Your task to perform on an android device: Show the shopping cart on bestbuy. Image 0: 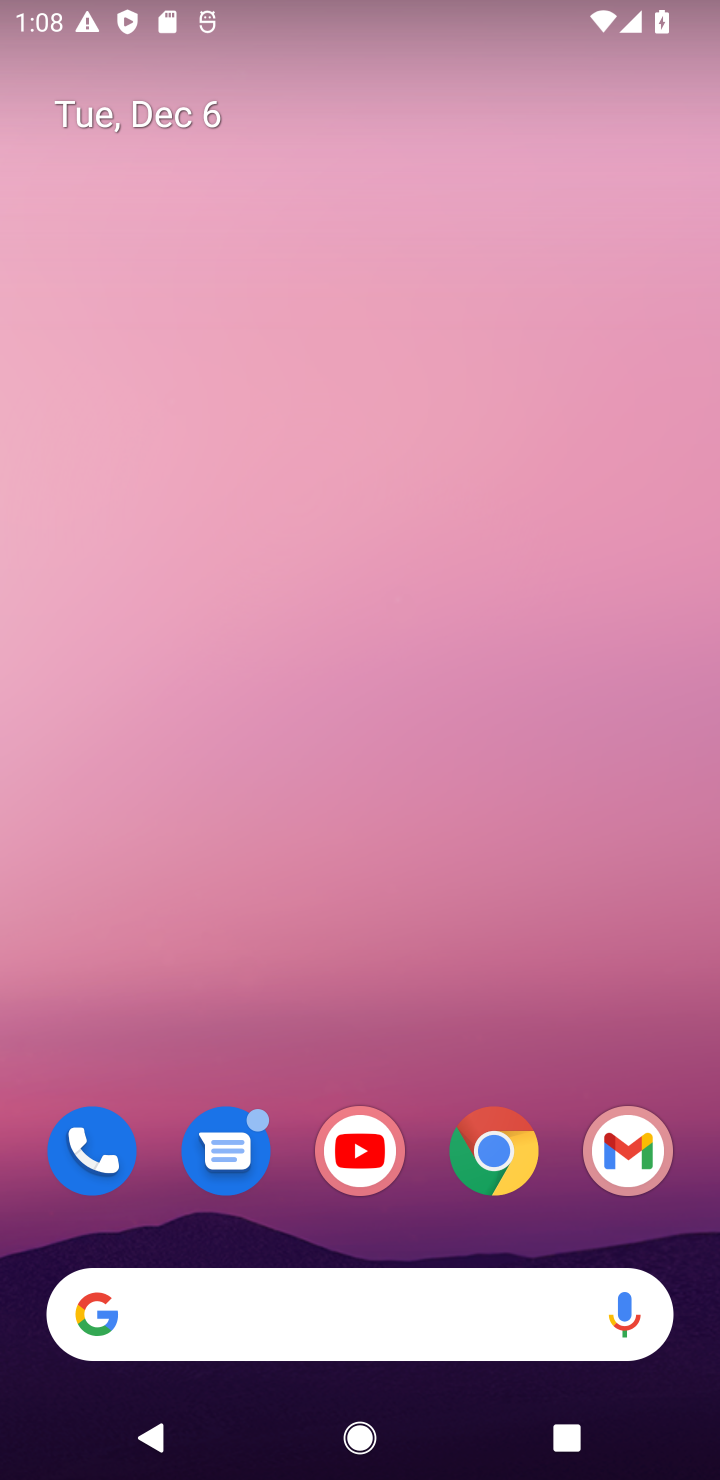
Step 0: click (490, 1166)
Your task to perform on an android device: Show the shopping cart on bestbuy. Image 1: 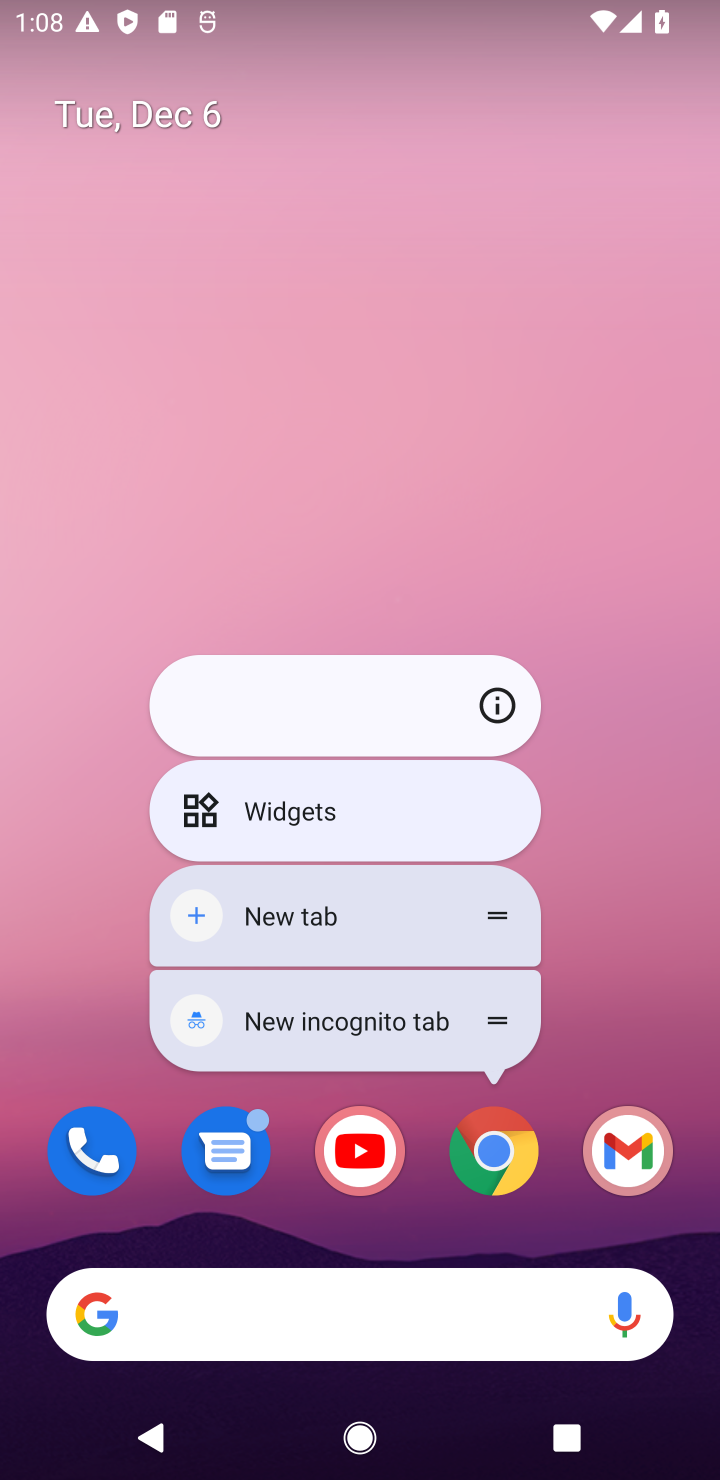
Step 1: click (495, 1160)
Your task to perform on an android device: Show the shopping cart on bestbuy. Image 2: 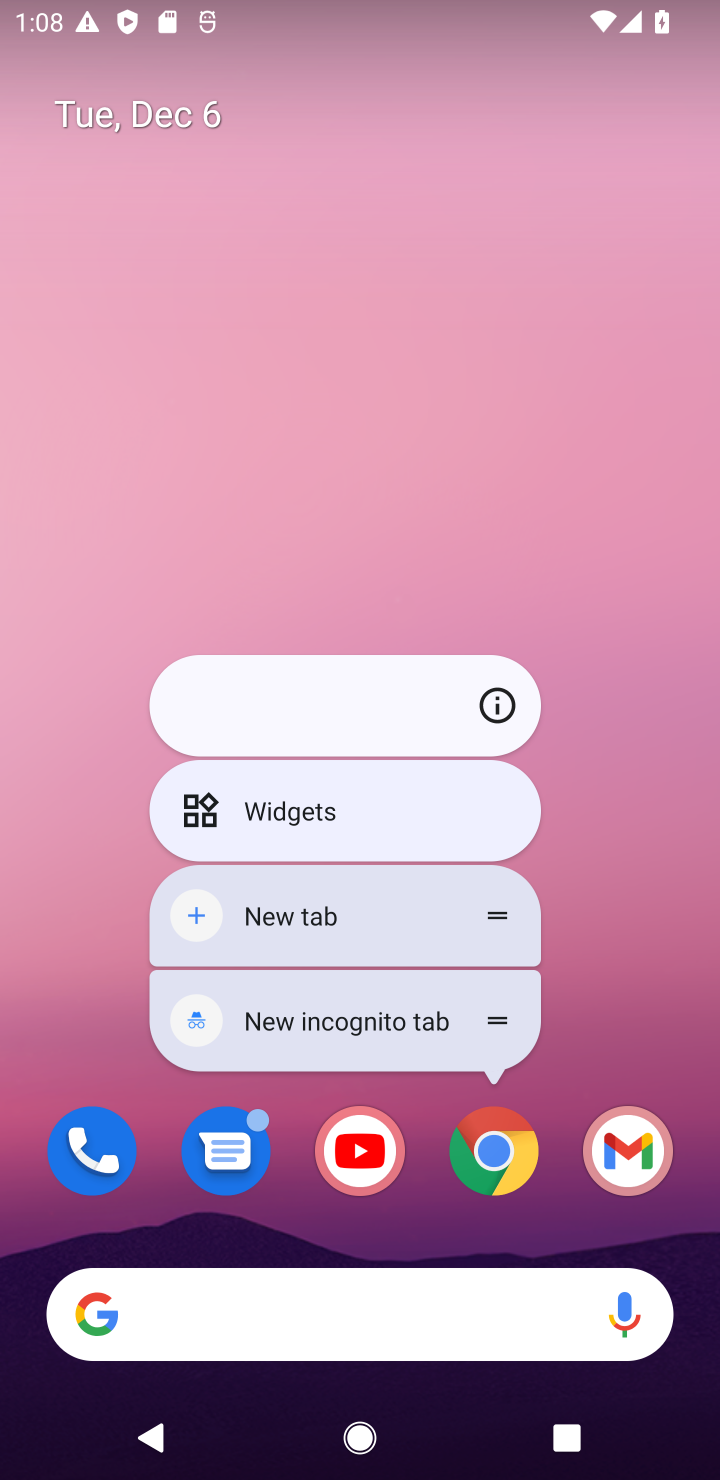
Step 2: click (495, 1160)
Your task to perform on an android device: Show the shopping cart on bestbuy. Image 3: 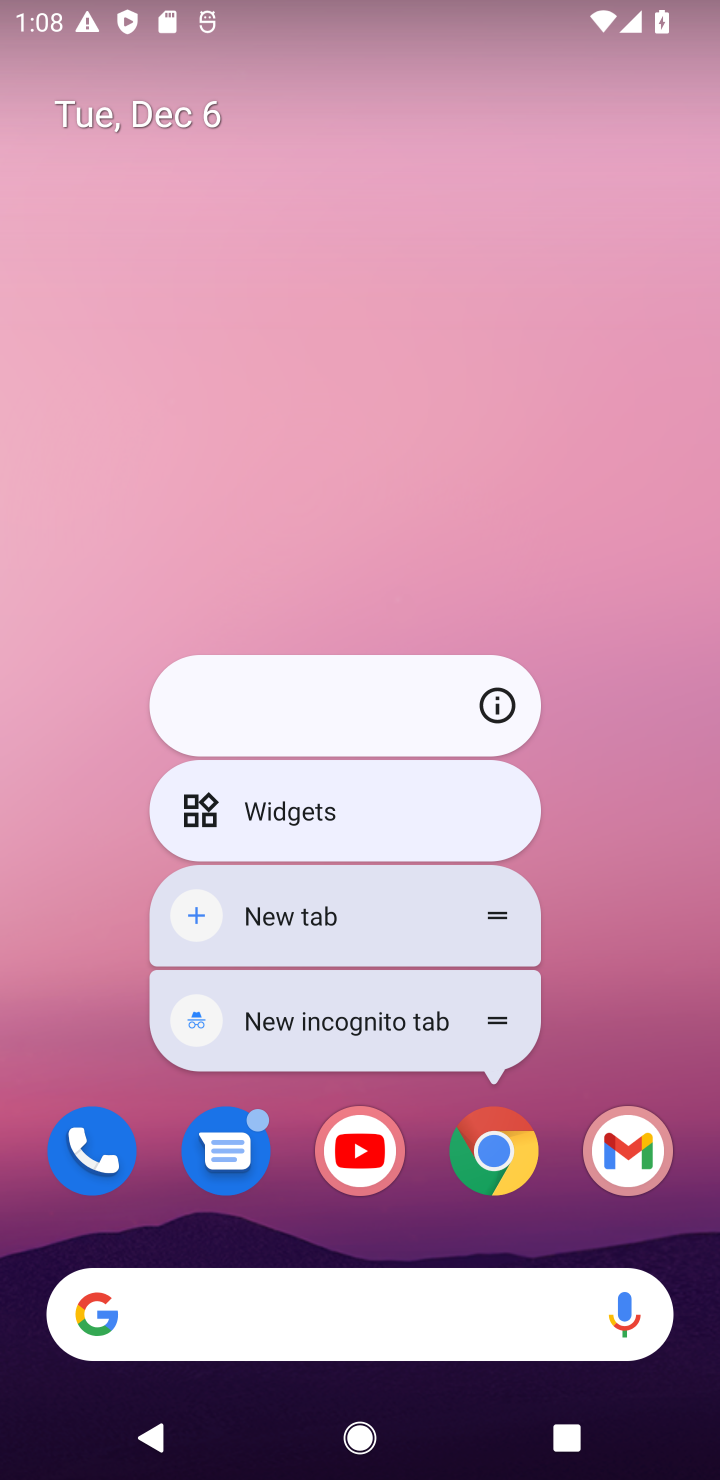
Step 3: click (495, 1160)
Your task to perform on an android device: Show the shopping cart on bestbuy. Image 4: 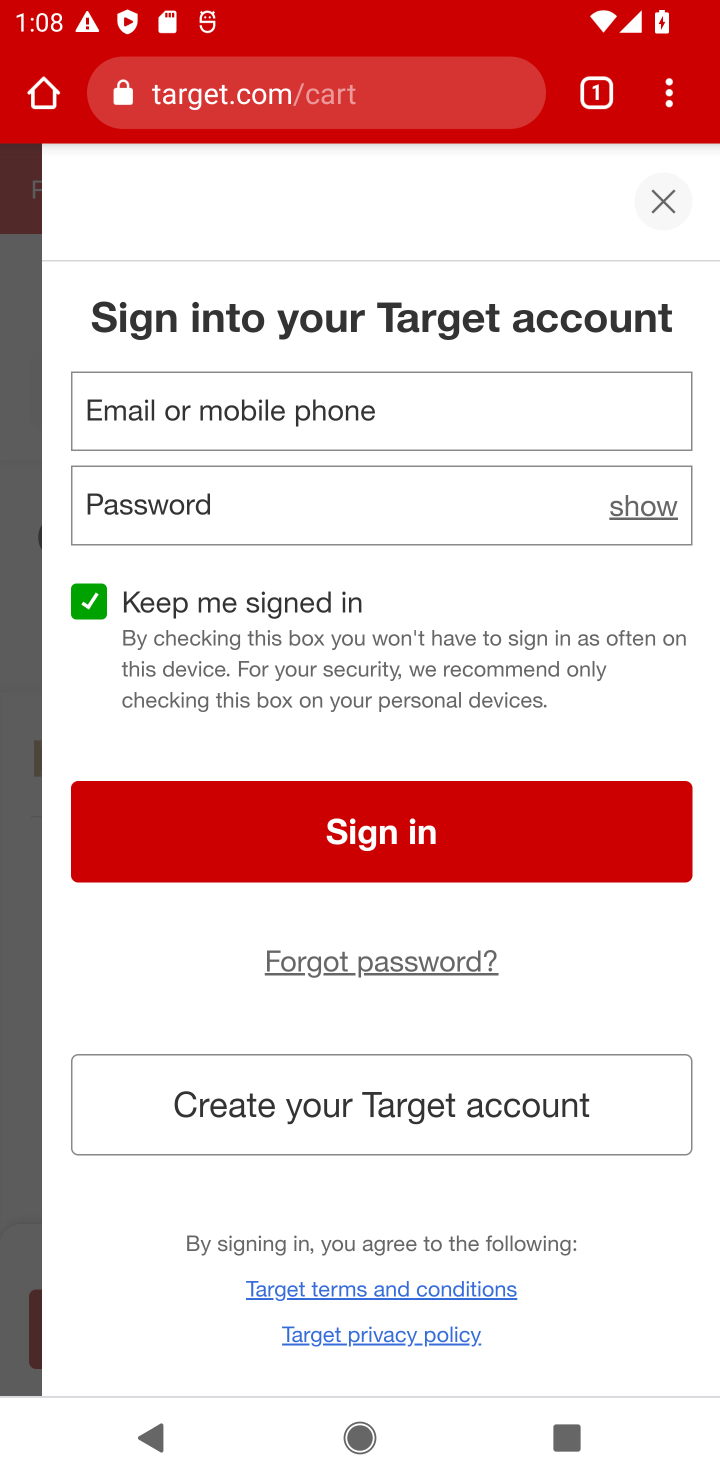
Step 4: click (289, 98)
Your task to perform on an android device: Show the shopping cart on bestbuy. Image 5: 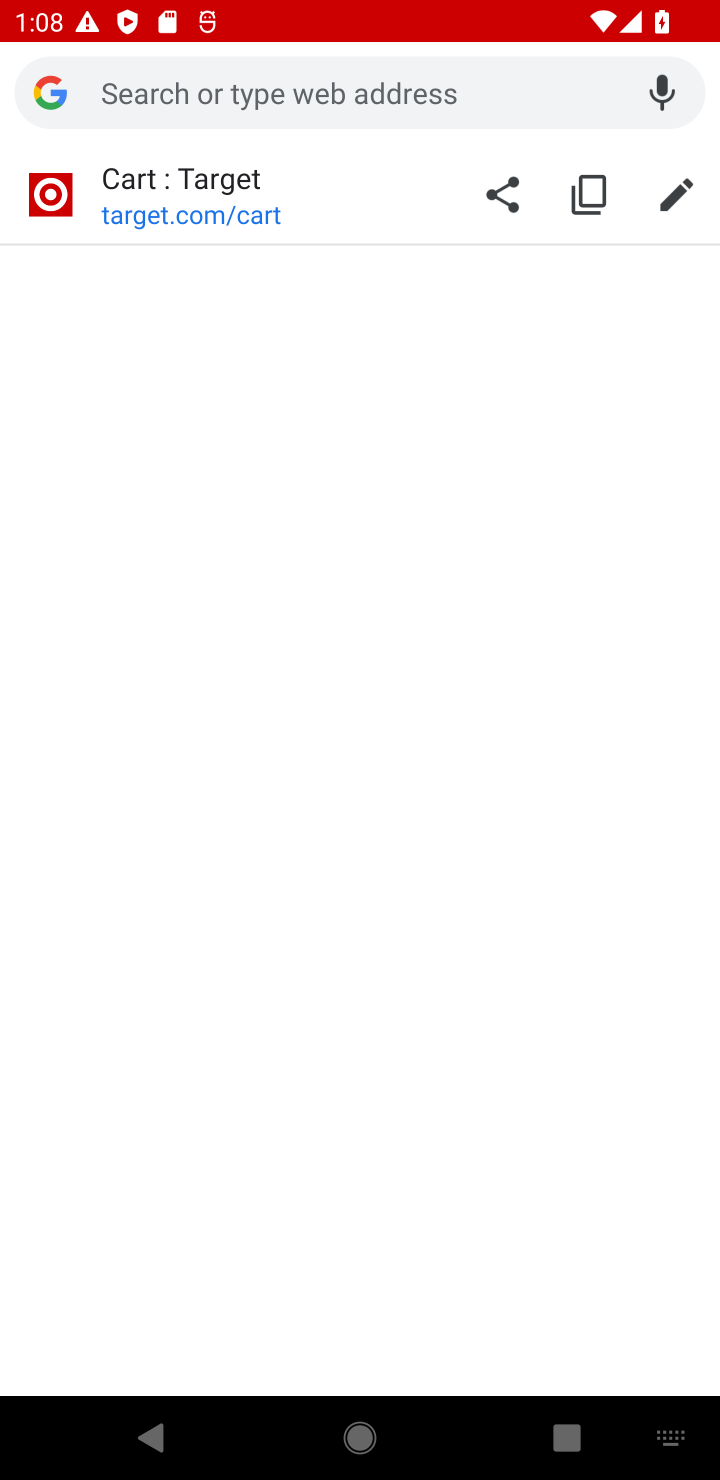
Step 5: type "bestbuy.com"
Your task to perform on an android device: Show the shopping cart on bestbuy. Image 6: 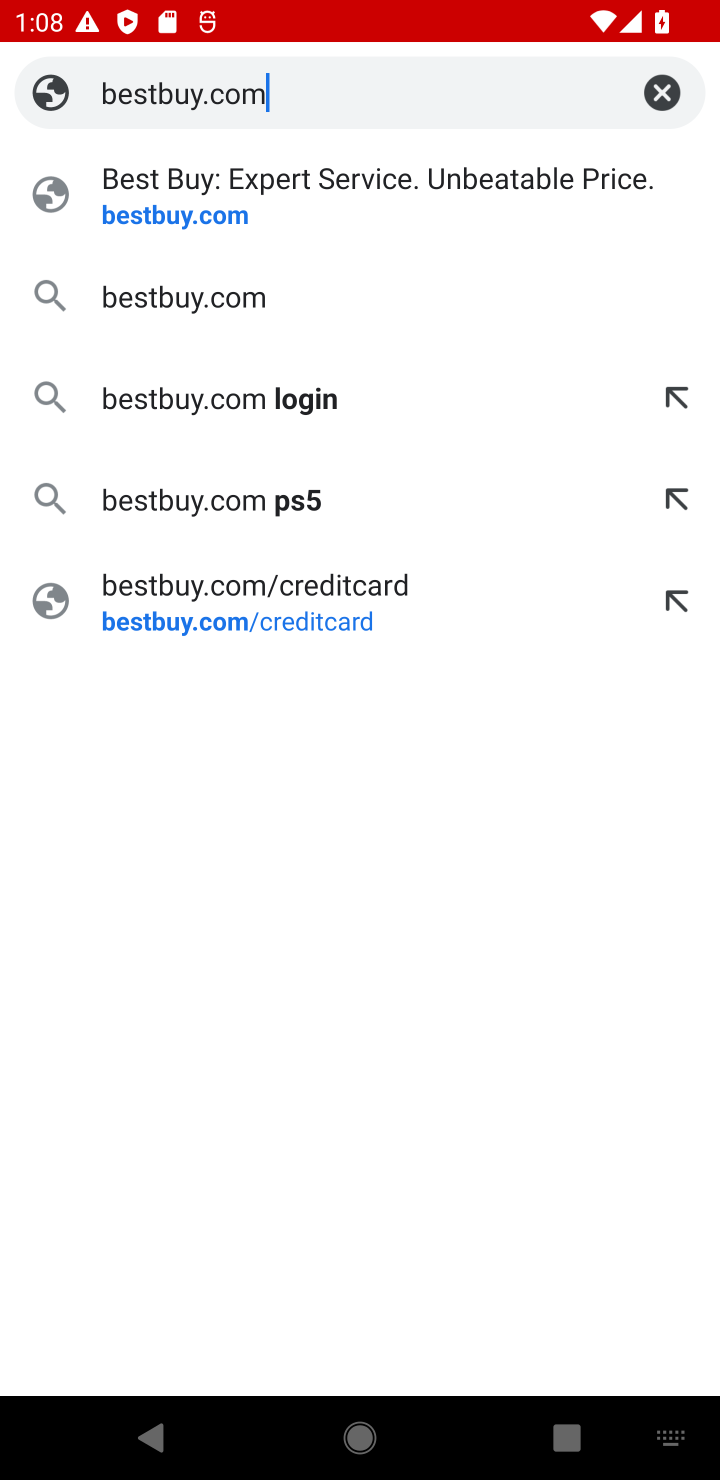
Step 6: click (186, 212)
Your task to perform on an android device: Show the shopping cart on bestbuy. Image 7: 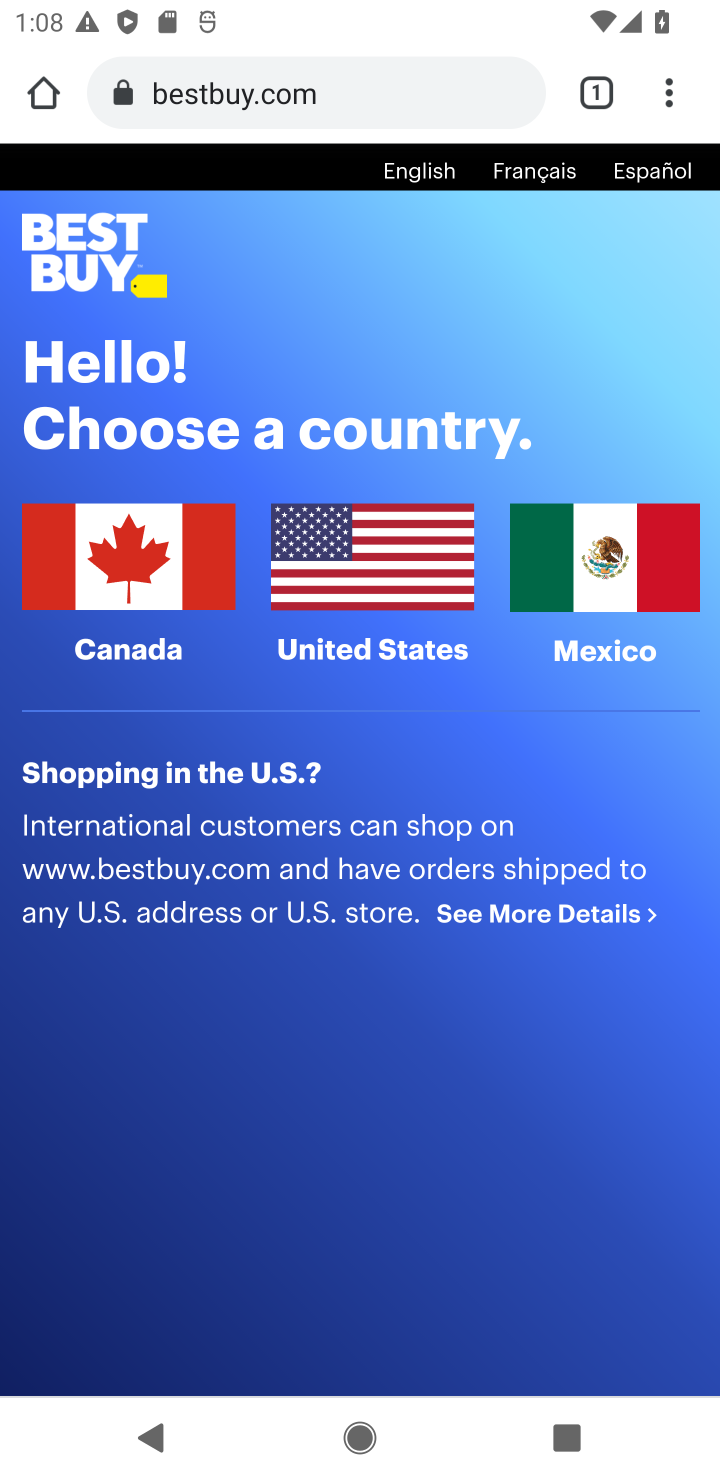
Step 7: click (387, 596)
Your task to perform on an android device: Show the shopping cart on bestbuy. Image 8: 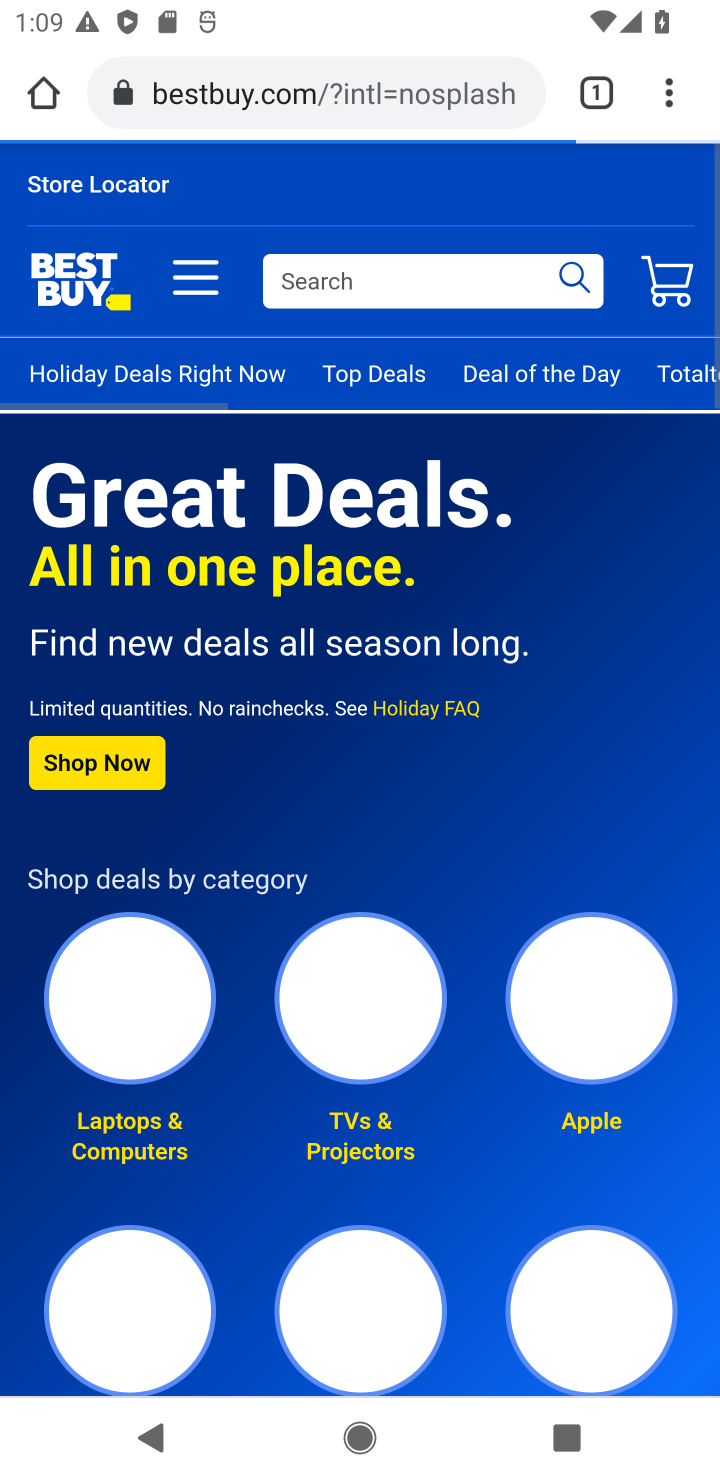
Step 8: click (359, 580)
Your task to perform on an android device: Show the shopping cart on bestbuy. Image 9: 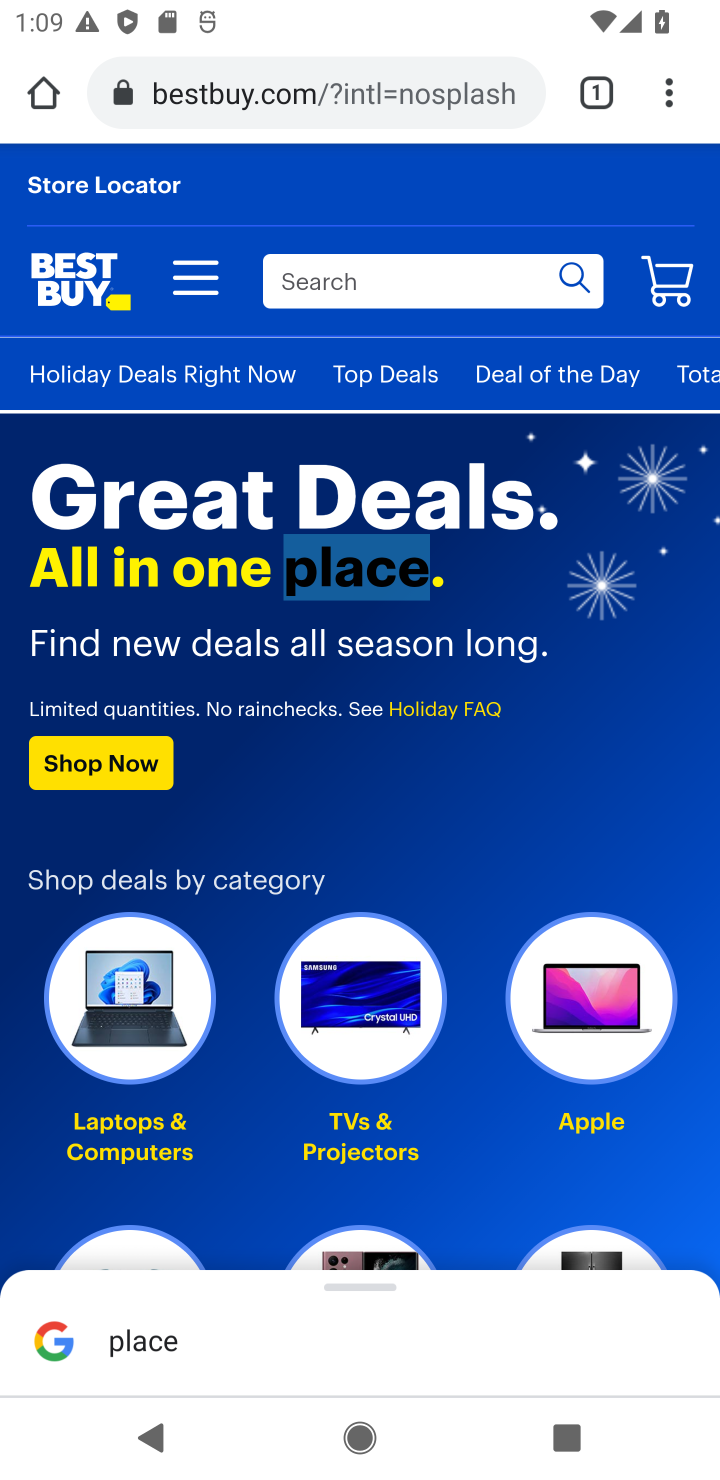
Step 9: click (663, 285)
Your task to perform on an android device: Show the shopping cart on bestbuy. Image 10: 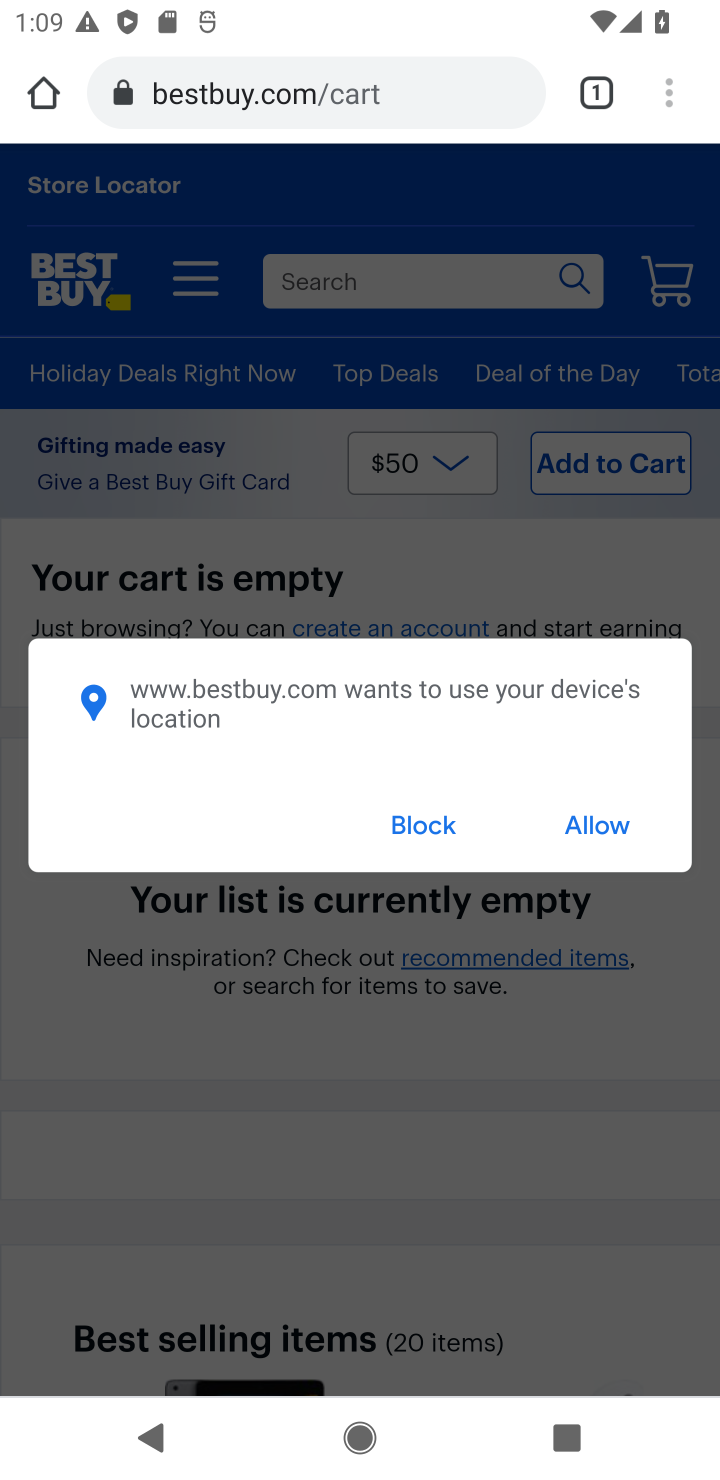
Step 10: click (404, 833)
Your task to perform on an android device: Show the shopping cart on bestbuy. Image 11: 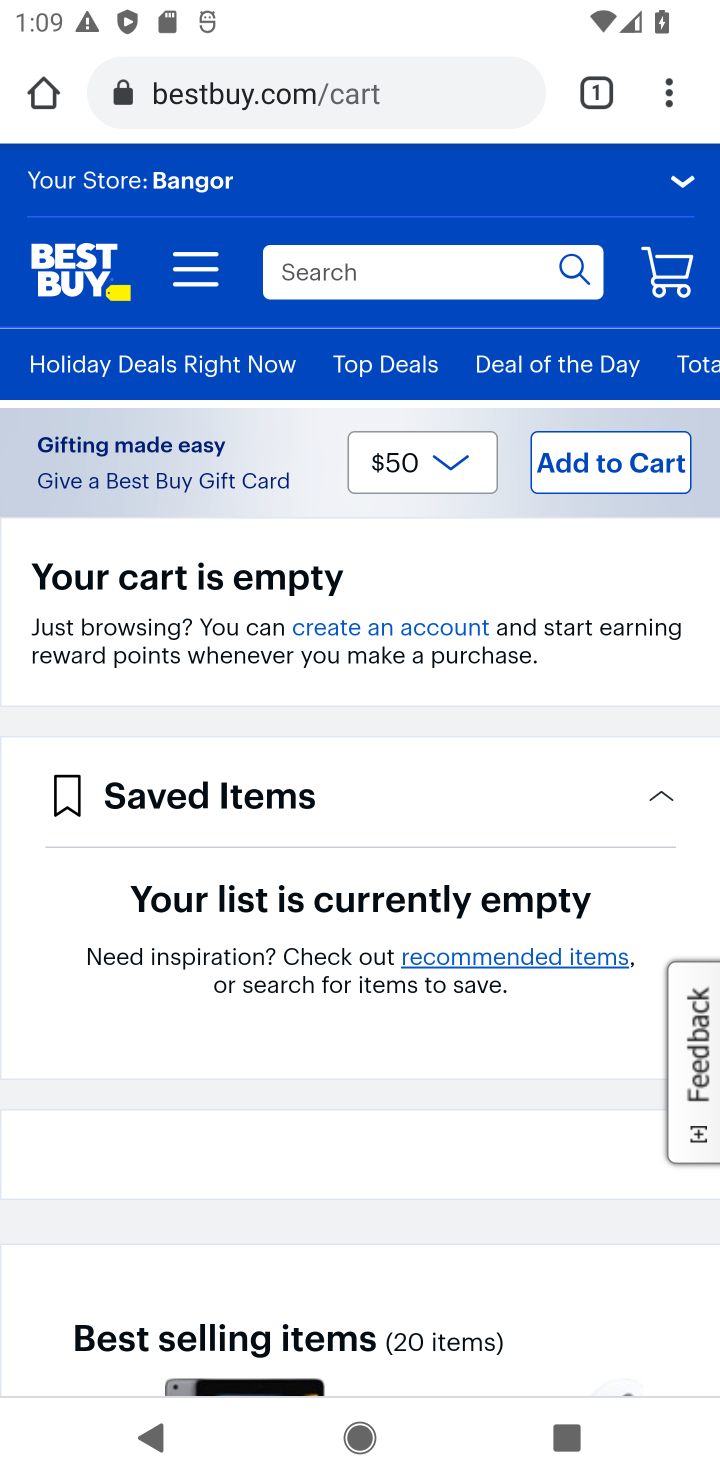
Step 11: task complete